Your task to perform on an android device: Search for Mexican restaurants on Maps Image 0: 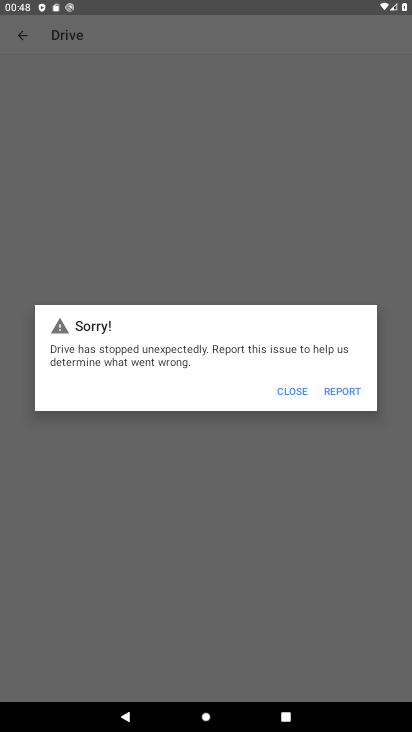
Step 0: click (304, 386)
Your task to perform on an android device: Search for Mexican restaurants on Maps Image 1: 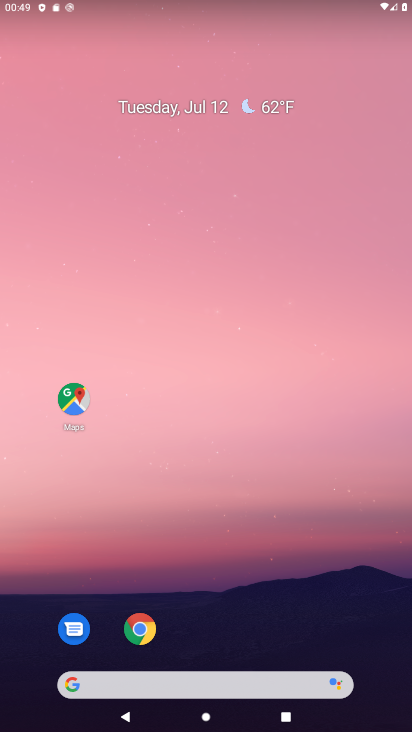
Step 1: click (87, 398)
Your task to perform on an android device: Search for Mexican restaurants on Maps Image 2: 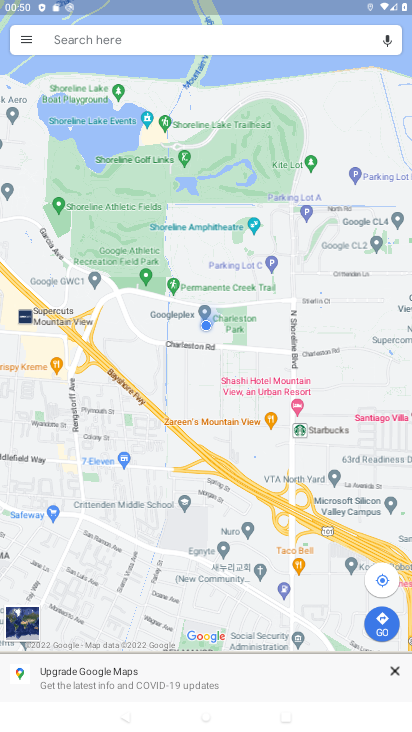
Step 2: click (211, 35)
Your task to perform on an android device: Search for Mexican restaurants on Maps Image 3: 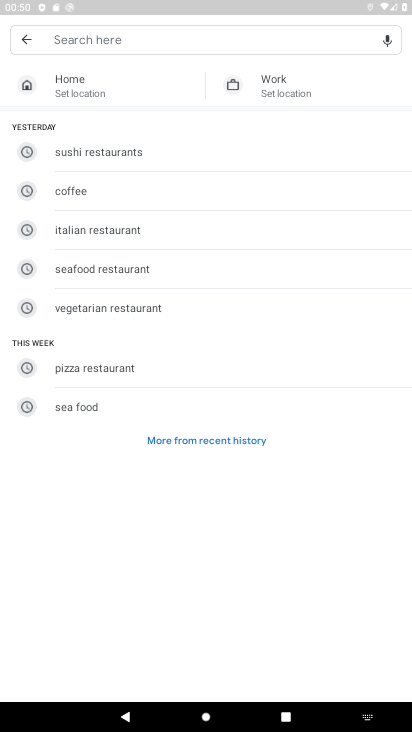
Step 3: type "Mexican restaurants "
Your task to perform on an android device: Search for Mexican restaurants on Maps Image 4: 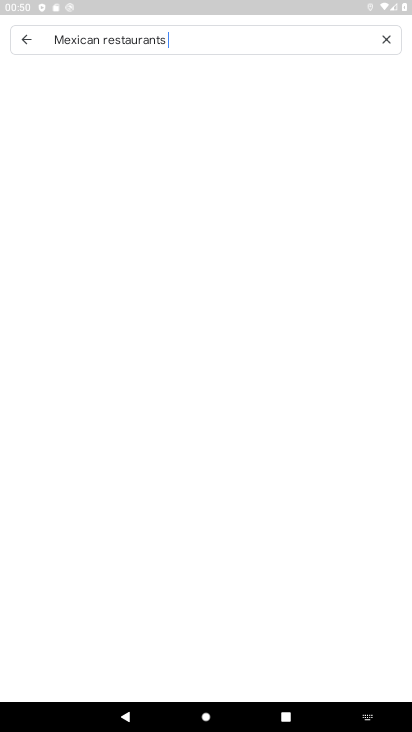
Step 4: type ""
Your task to perform on an android device: Search for Mexican restaurants on Maps Image 5: 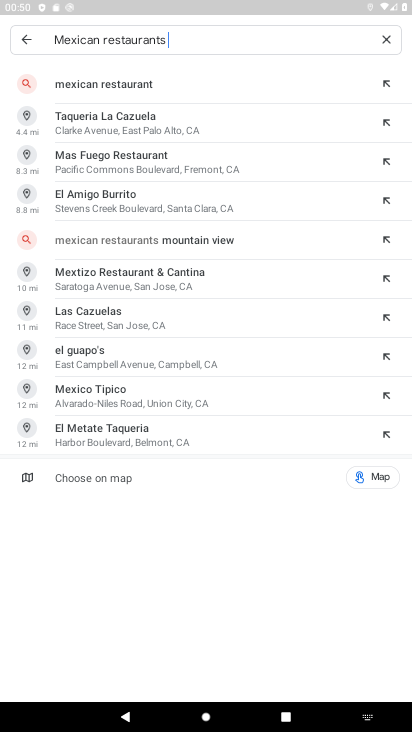
Step 5: click (90, 82)
Your task to perform on an android device: Search for Mexican restaurants on Maps Image 6: 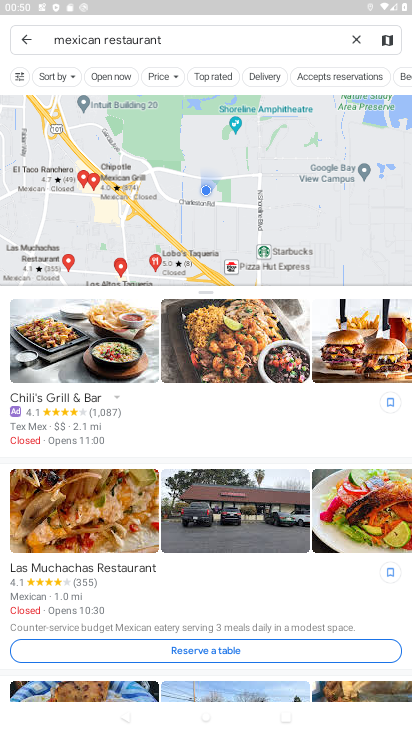
Step 6: task complete